Your task to perform on an android device: Open Wikipedia Image 0: 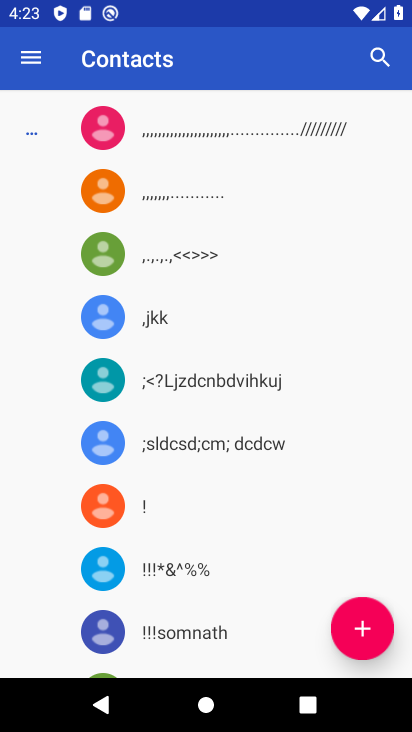
Step 0: press home button
Your task to perform on an android device: Open Wikipedia Image 1: 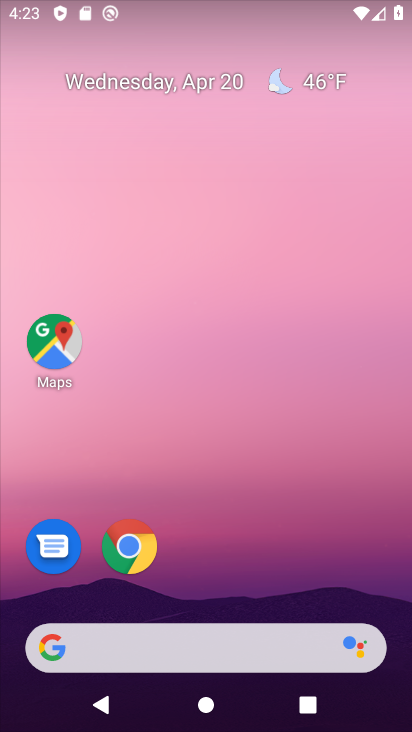
Step 1: click (148, 645)
Your task to perform on an android device: Open Wikipedia Image 2: 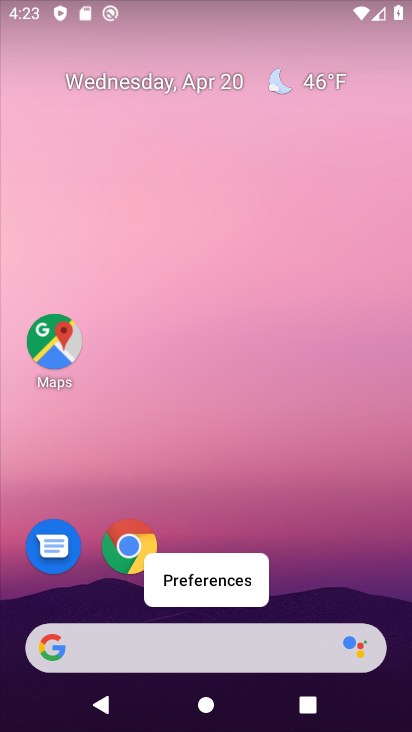
Step 2: click (119, 545)
Your task to perform on an android device: Open Wikipedia Image 3: 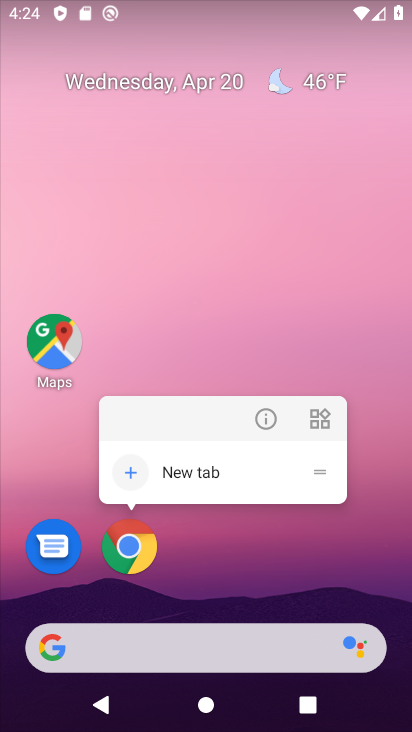
Step 3: click (200, 557)
Your task to perform on an android device: Open Wikipedia Image 4: 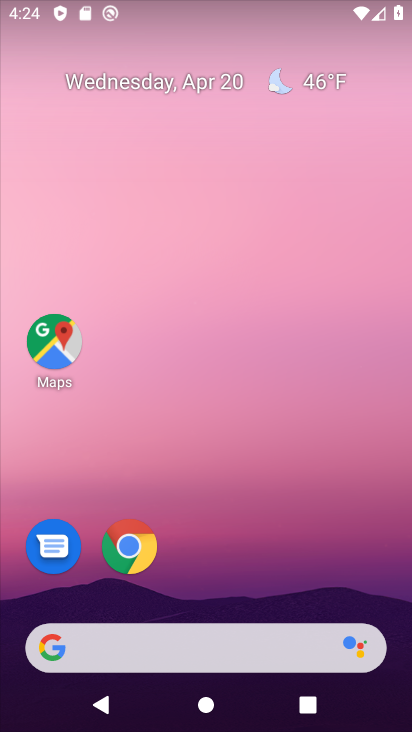
Step 4: click (124, 550)
Your task to perform on an android device: Open Wikipedia Image 5: 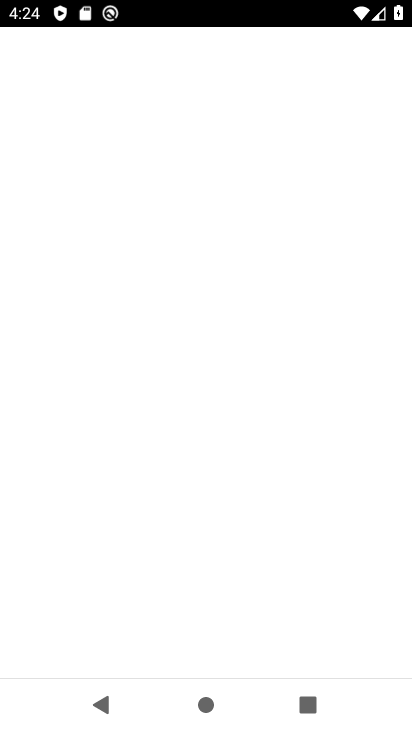
Step 5: click (122, 550)
Your task to perform on an android device: Open Wikipedia Image 6: 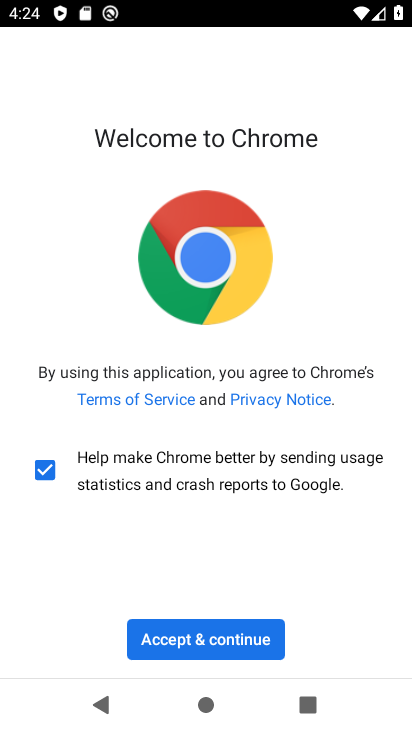
Step 6: click (224, 646)
Your task to perform on an android device: Open Wikipedia Image 7: 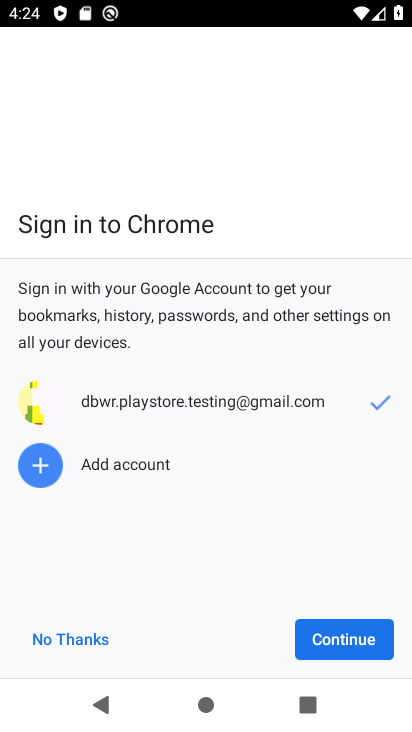
Step 7: click (341, 645)
Your task to perform on an android device: Open Wikipedia Image 8: 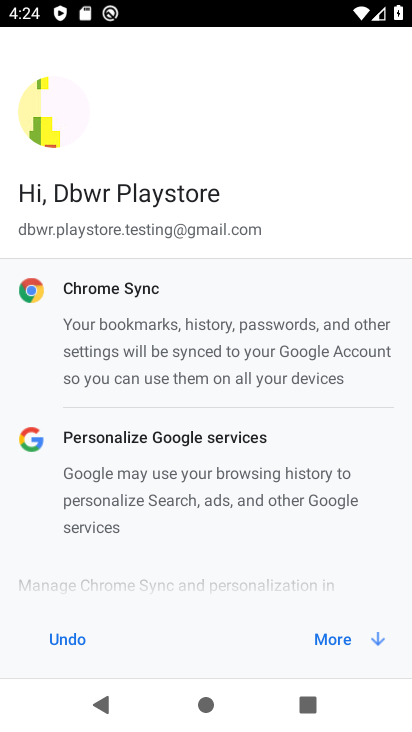
Step 8: click (332, 638)
Your task to perform on an android device: Open Wikipedia Image 9: 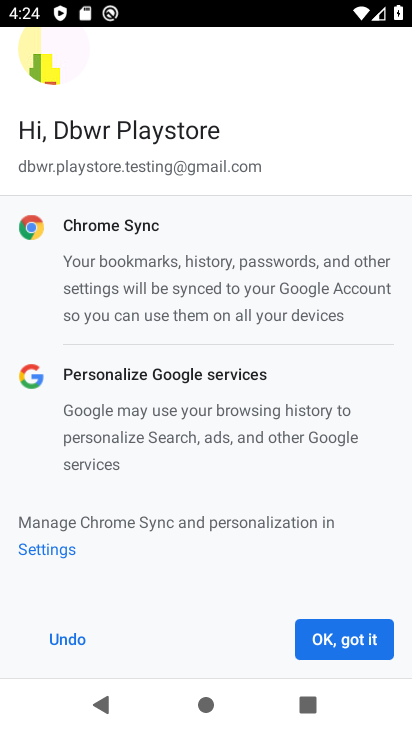
Step 9: click (331, 636)
Your task to perform on an android device: Open Wikipedia Image 10: 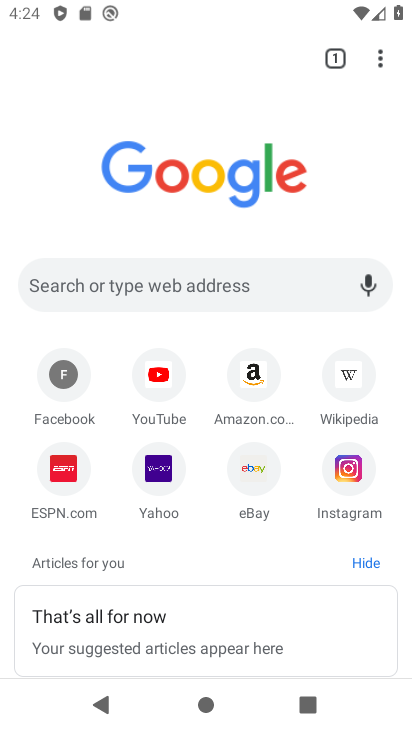
Step 10: click (167, 286)
Your task to perform on an android device: Open Wikipedia Image 11: 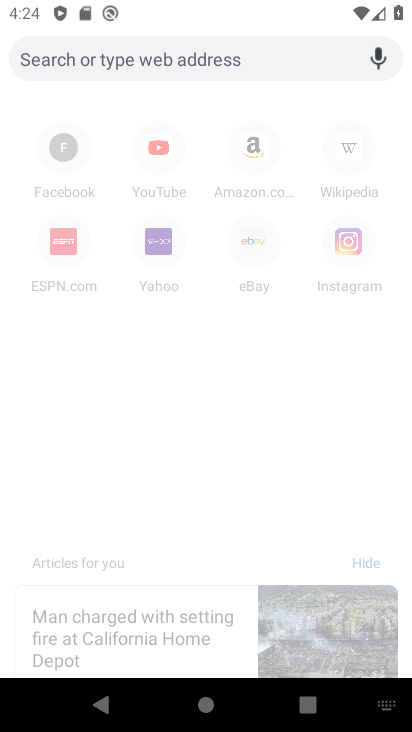
Step 11: type "wikipedia"
Your task to perform on an android device: Open Wikipedia Image 12: 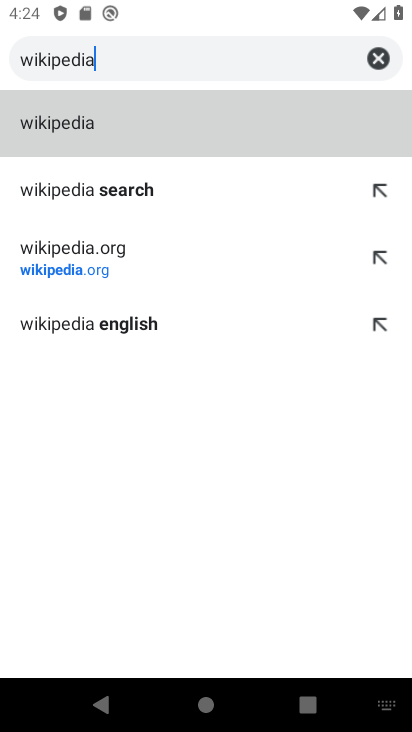
Step 12: click (96, 129)
Your task to perform on an android device: Open Wikipedia Image 13: 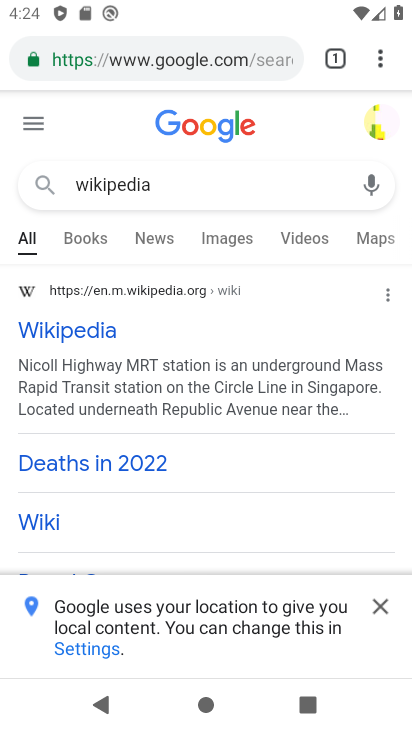
Step 13: click (115, 386)
Your task to perform on an android device: Open Wikipedia Image 14: 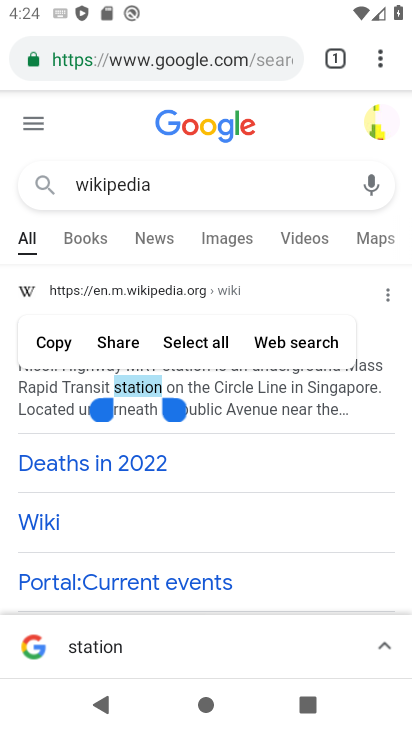
Step 14: click (9, 394)
Your task to perform on an android device: Open Wikipedia Image 15: 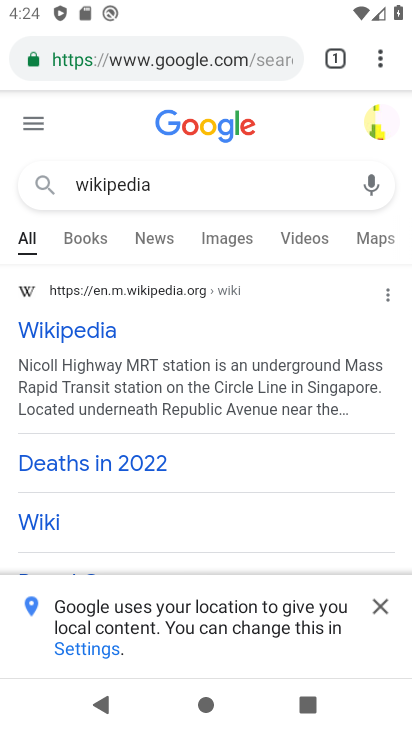
Step 15: click (41, 331)
Your task to perform on an android device: Open Wikipedia Image 16: 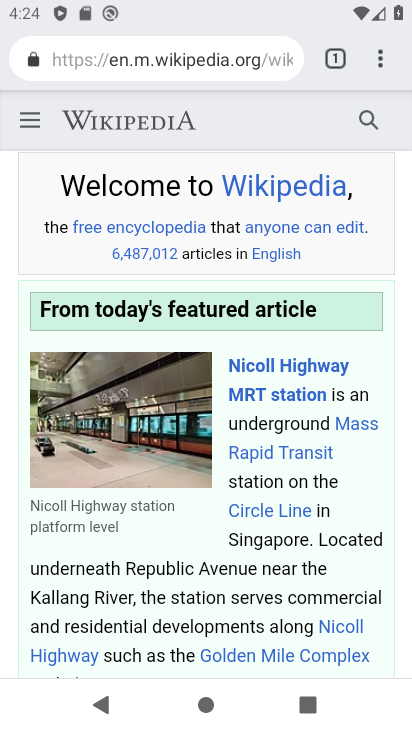
Step 16: task complete